Your task to perform on an android device: toggle javascript in the chrome app Image 0: 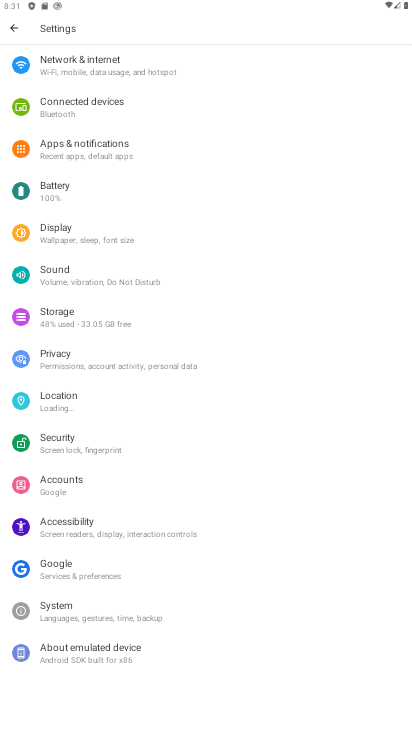
Step 0: press home button
Your task to perform on an android device: toggle javascript in the chrome app Image 1: 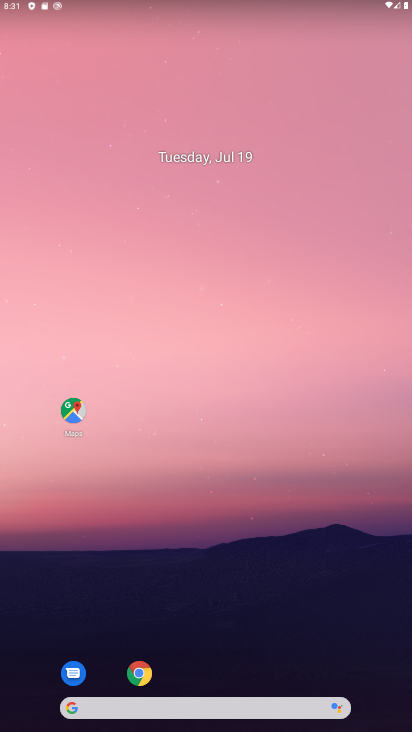
Step 1: click (140, 667)
Your task to perform on an android device: toggle javascript in the chrome app Image 2: 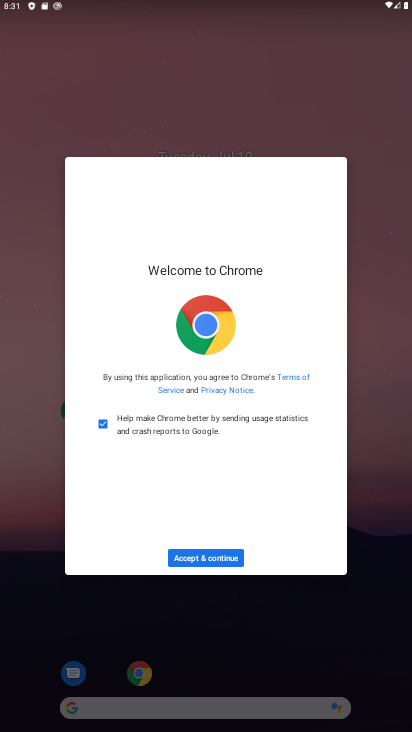
Step 2: click (204, 547)
Your task to perform on an android device: toggle javascript in the chrome app Image 3: 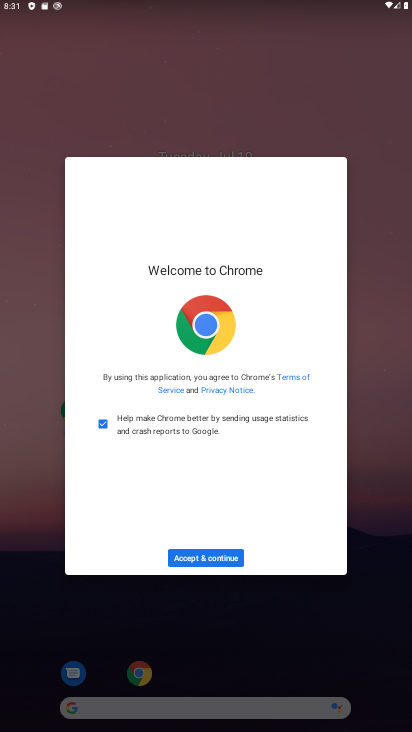
Step 3: click (227, 556)
Your task to perform on an android device: toggle javascript in the chrome app Image 4: 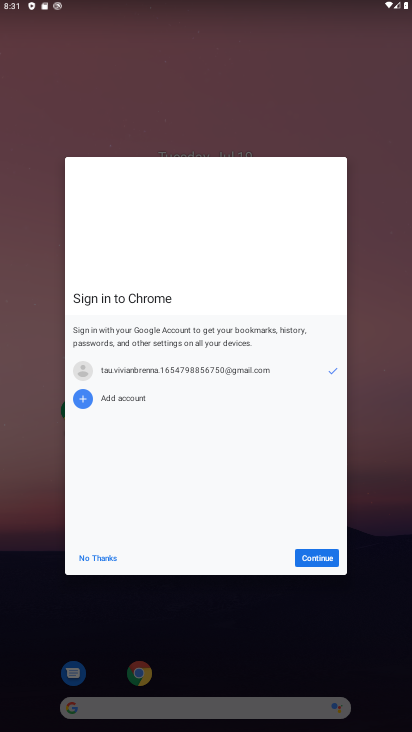
Step 4: click (305, 559)
Your task to perform on an android device: toggle javascript in the chrome app Image 5: 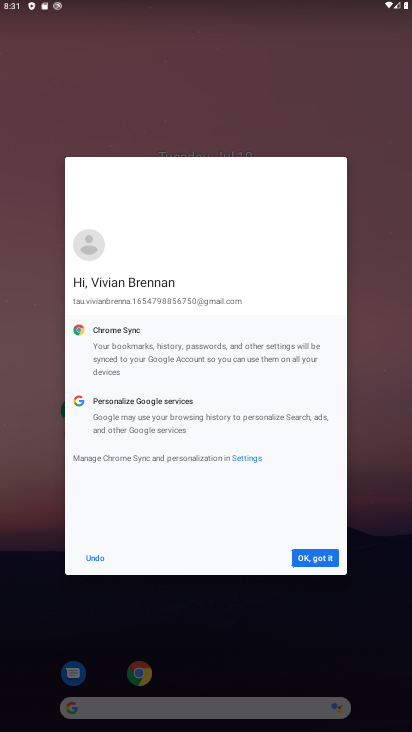
Step 5: click (305, 559)
Your task to perform on an android device: toggle javascript in the chrome app Image 6: 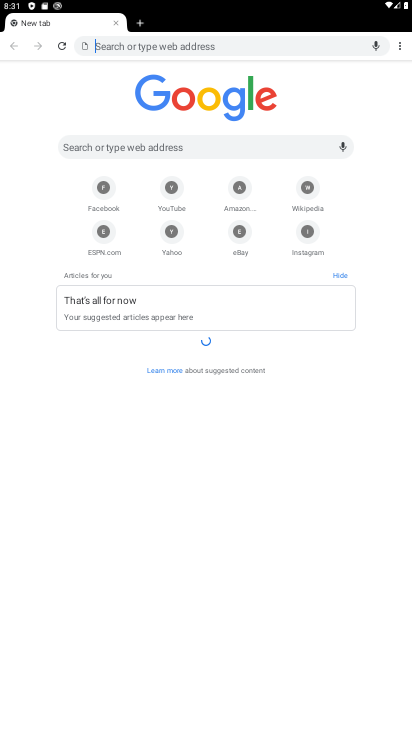
Step 6: click (399, 56)
Your task to perform on an android device: toggle javascript in the chrome app Image 7: 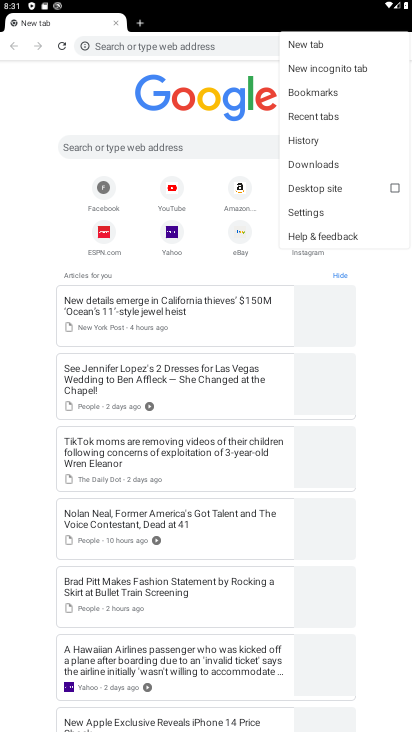
Step 7: click (333, 218)
Your task to perform on an android device: toggle javascript in the chrome app Image 8: 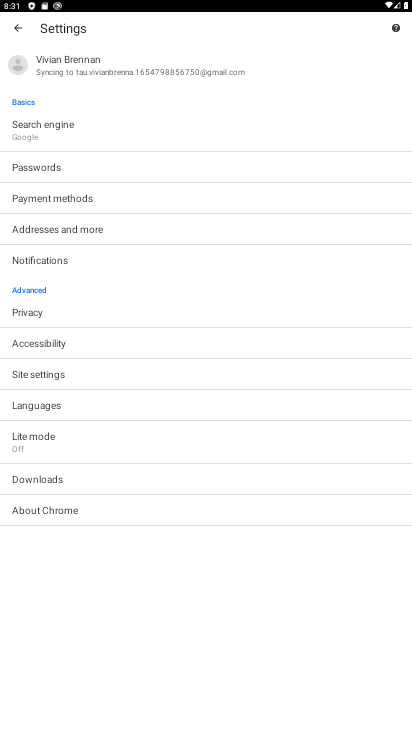
Step 8: click (131, 372)
Your task to perform on an android device: toggle javascript in the chrome app Image 9: 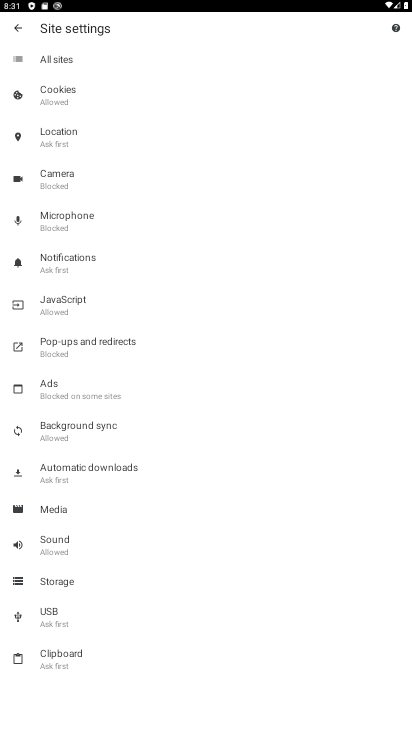
Step 9: click (89, 316)
Your task to perform on an android device: toggle javascript in the chrome app Image 10: 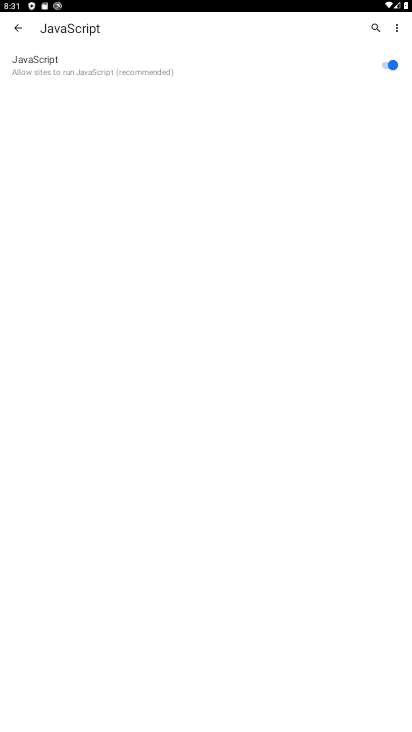
Step 10: click (385, 70)
Your task to perform on an android device: toggle javascript in the chrome app Image 11: 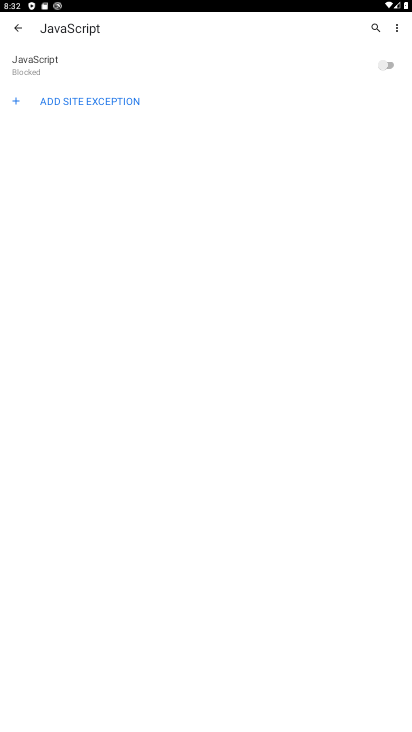
Step 11: task complete